Your task to perform on an android device: show emergency info Image 0: 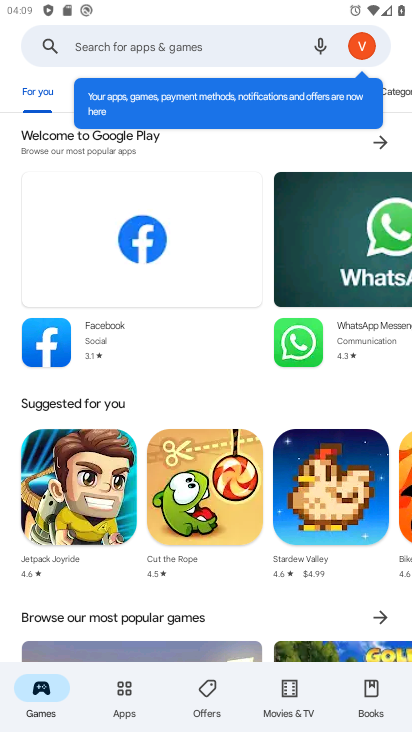
Step 0: press home button
Your task to perform on an android device: show emergency info Image 1: 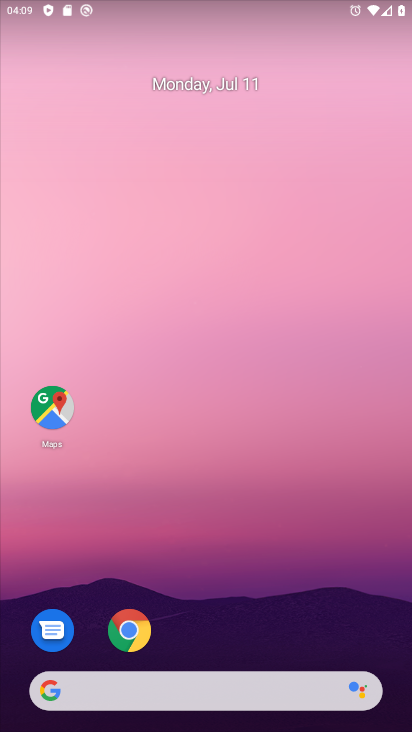
Step 1: drag from (221, 627) to (256, 12)
Your task to perform on an android device: show emergency info Image 2: 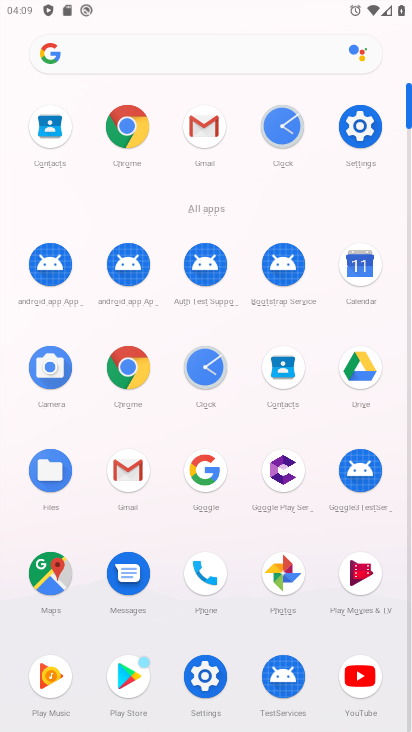
Step 2: click (358, 118)
Your task to perform on an android device: show emergency info Image 3: 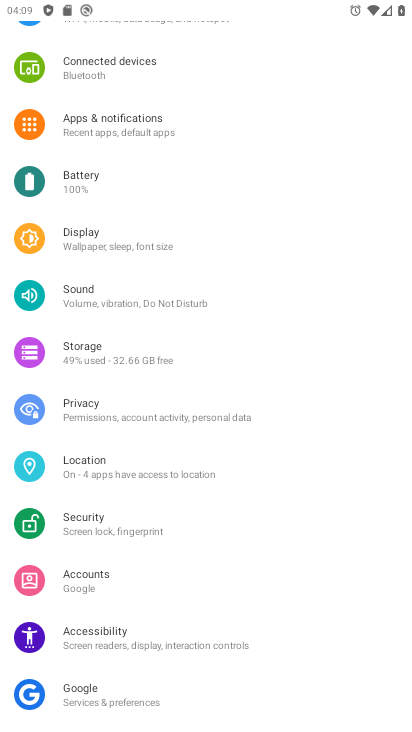
Step 3: drag from (177, 678) to (220, 183)
Your task to perform on an android device: show emergency info Image 4: 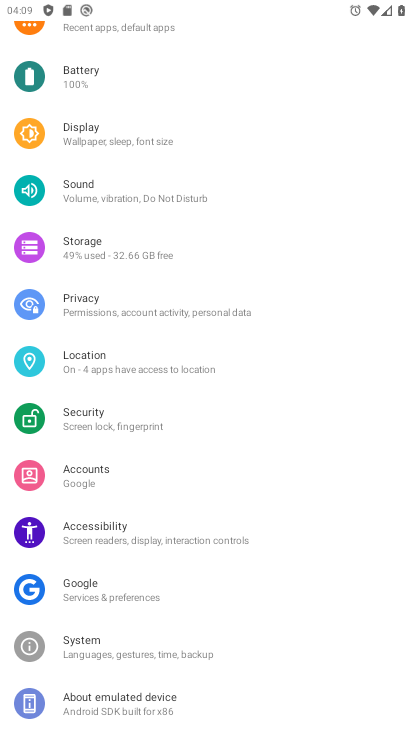
Step 4: click (189, 705)
Your task to perform on an android device: show emergency info Image 5: 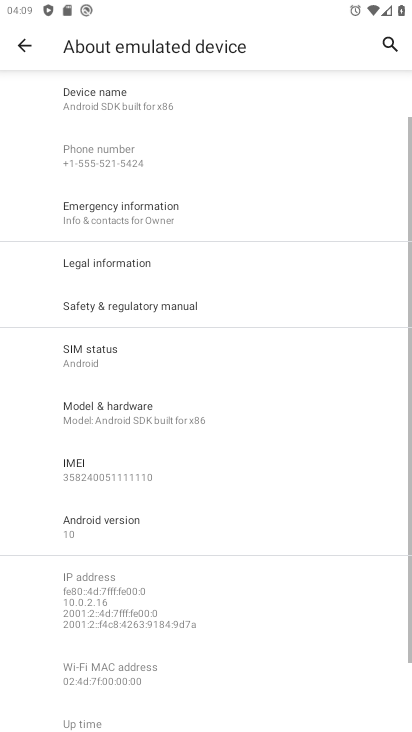
Step 5: click (160, 214)
Your task to perform on an android device: show emergency info Image 6: 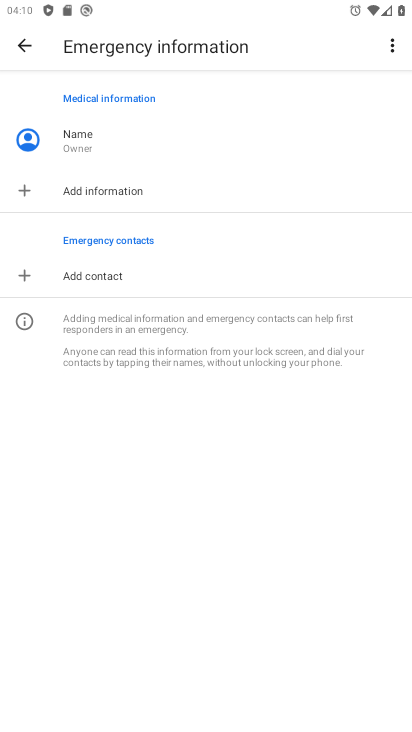
Step 6: task complete